Your task to perform on an android device: install app "Contacts" Image 0: 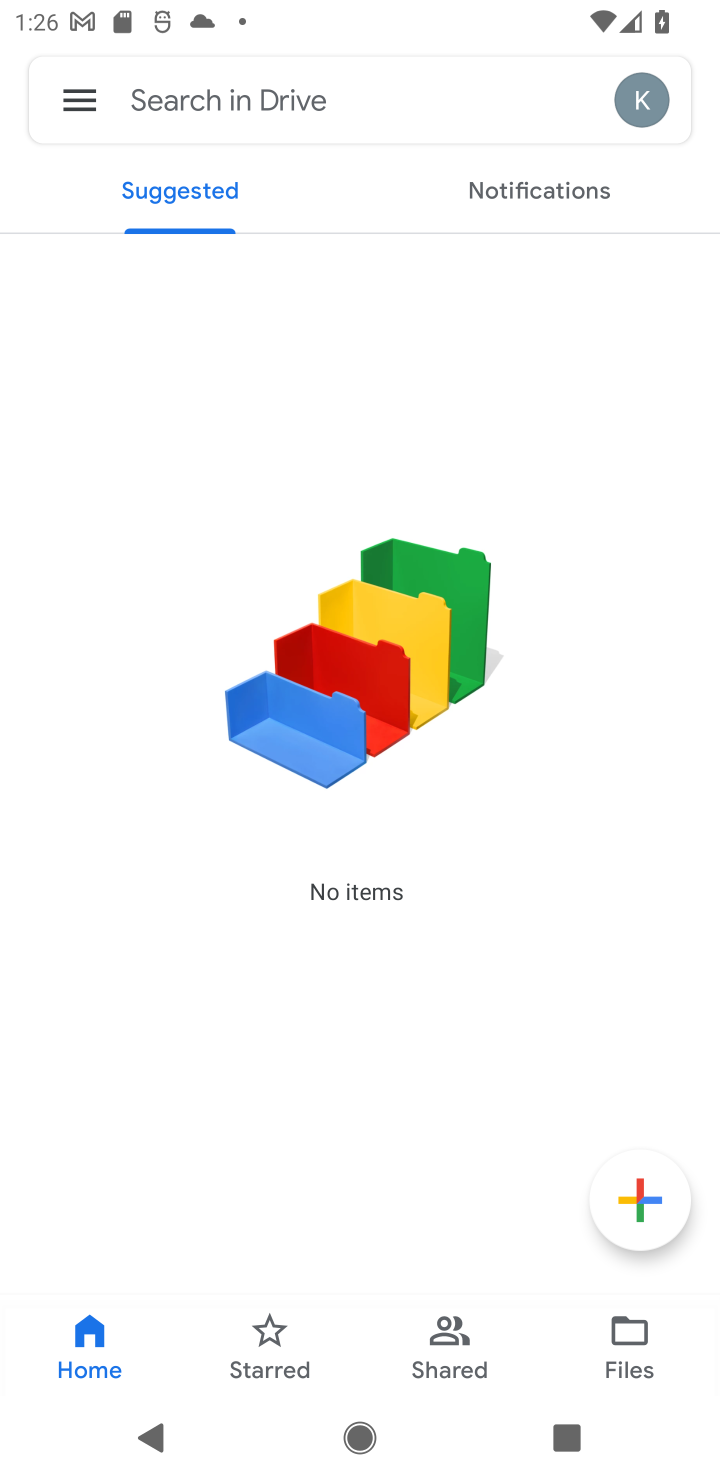
Step 0: press home button
Your task to perform on an android device: install app "Contacts" Image 1: 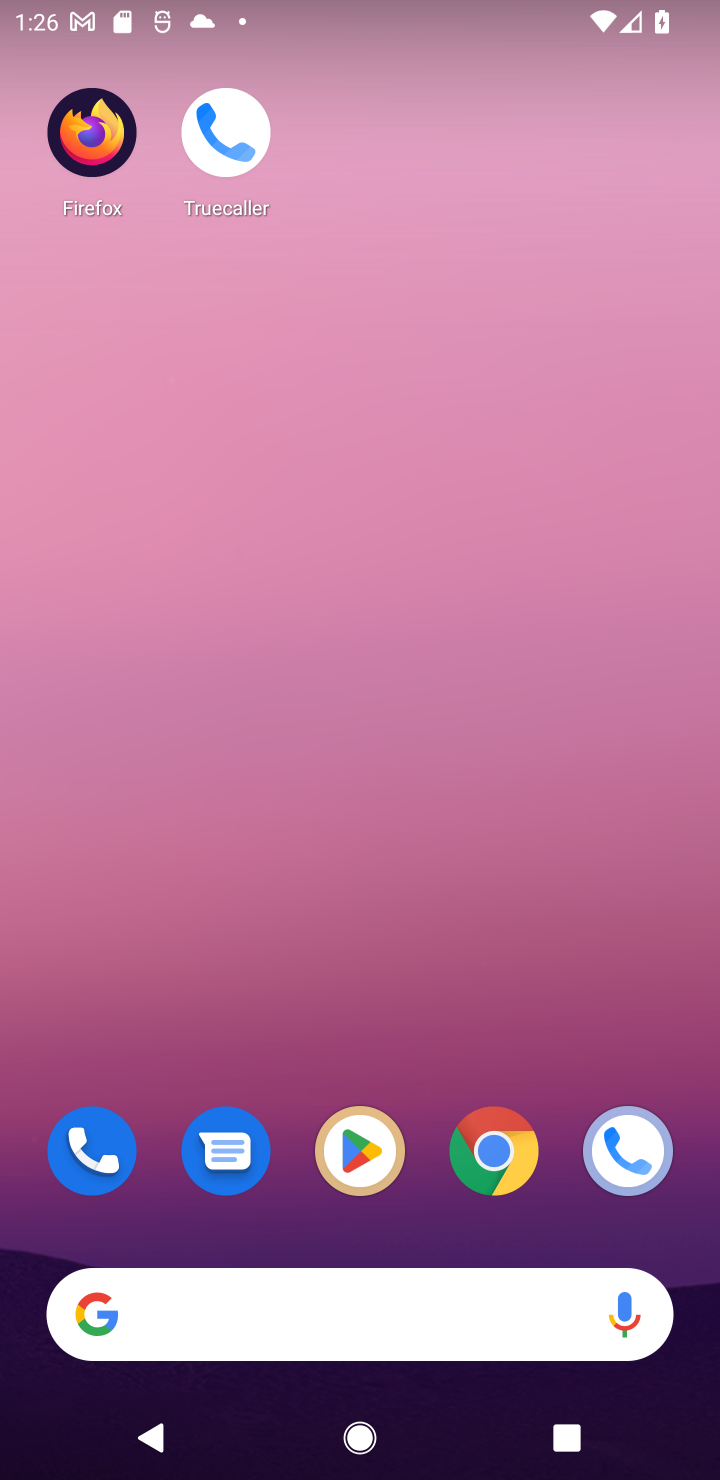
Step 1: press home button
Your task to perform on an android device: install app "Contacts" Image 2: 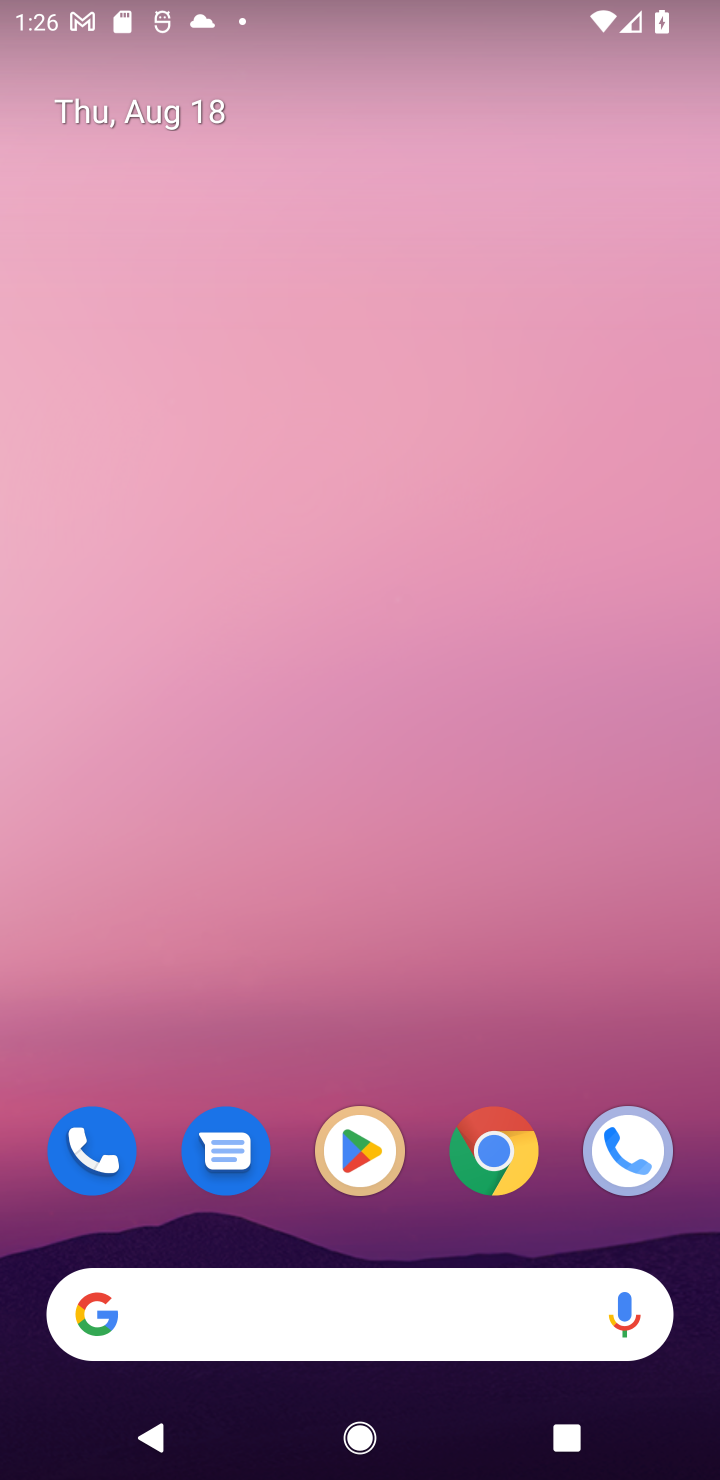
Step 2: click (365, 1158)
Your task to perform on an android device: install app "Contacts" Image 3: 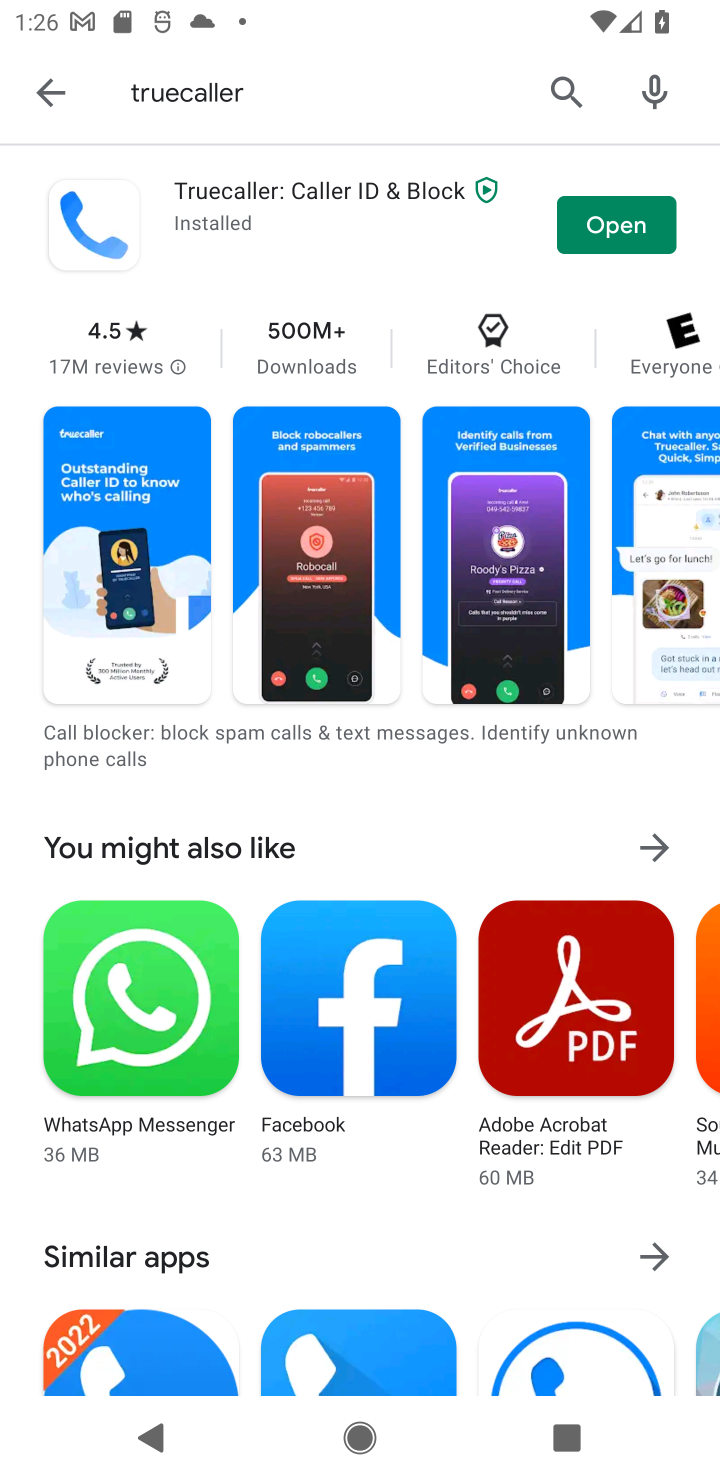
Step 3: click (56, 94)
Your task to perform on an android device: install app "Contacts" Image 4: 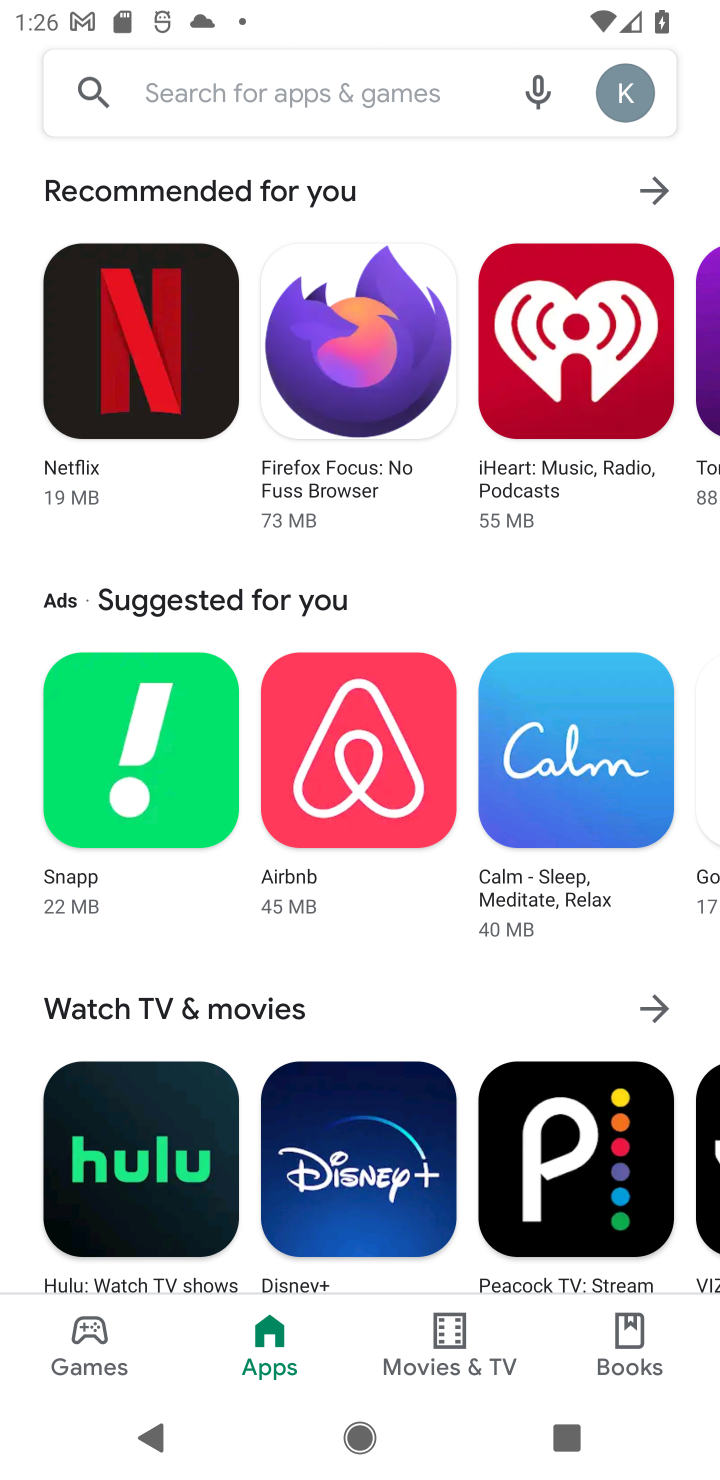
Step 4: click (269, 78)
Your task to perform on an android device: install app "Contacts" Image 5: 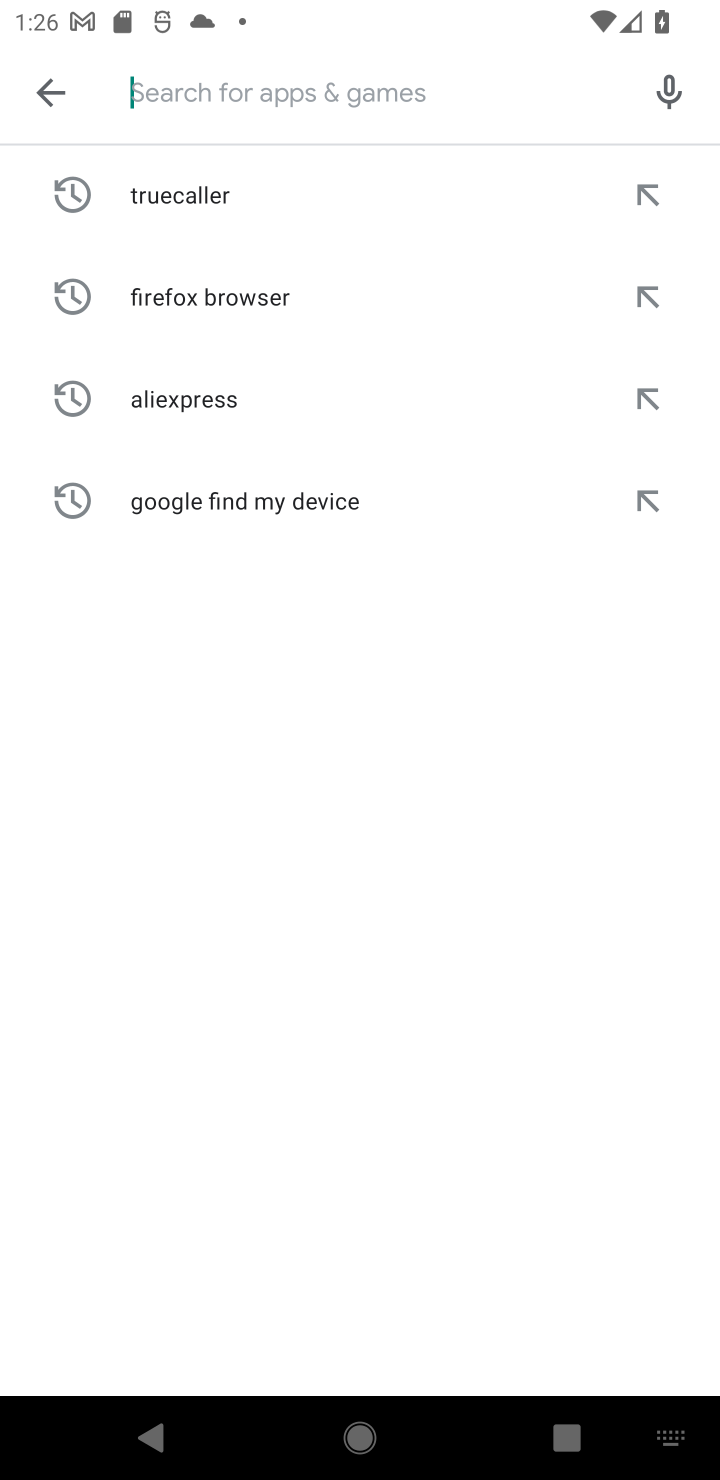
Step 5: type "Contacts"
Your task to perform on an android device: install app "Contacts" Image 6: 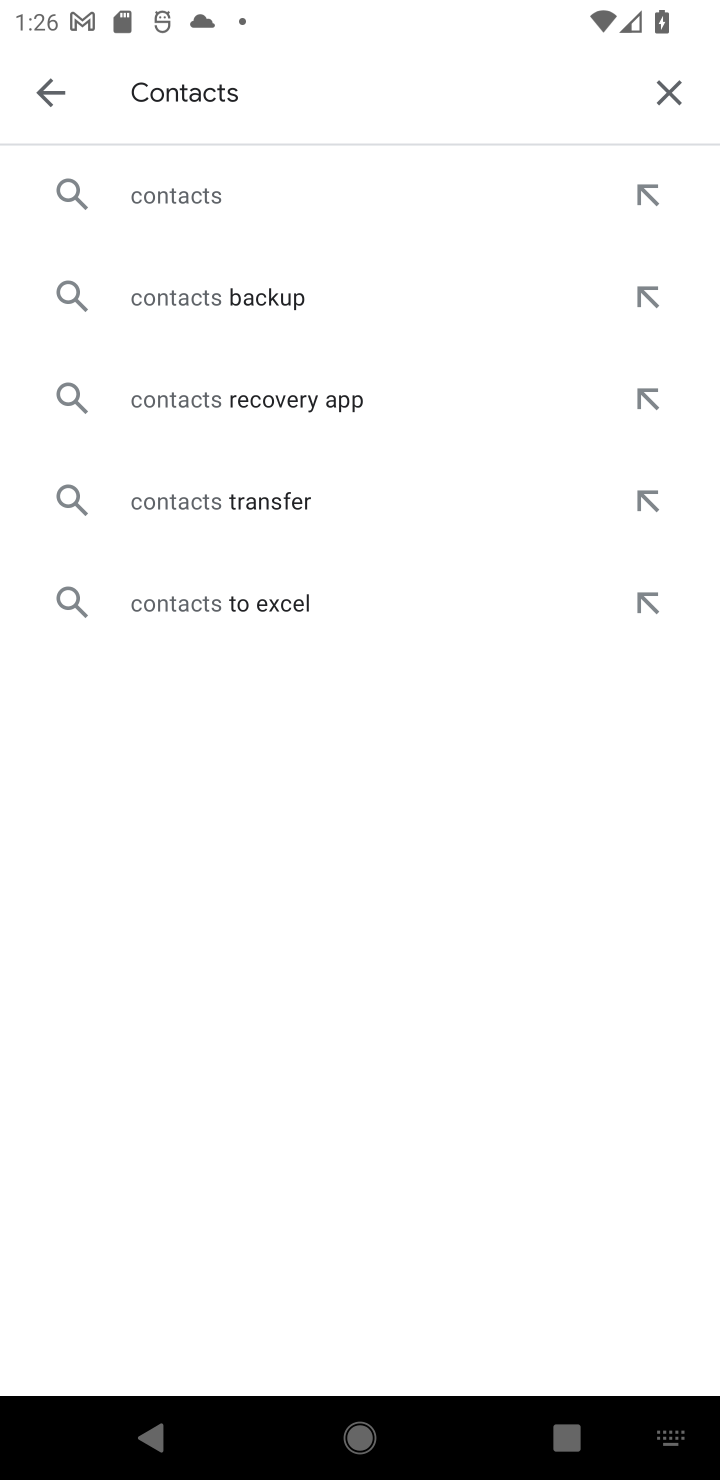
Step 6: click (183, 201)
Your task to perform on an android device: install app "Contacts" Image 7: 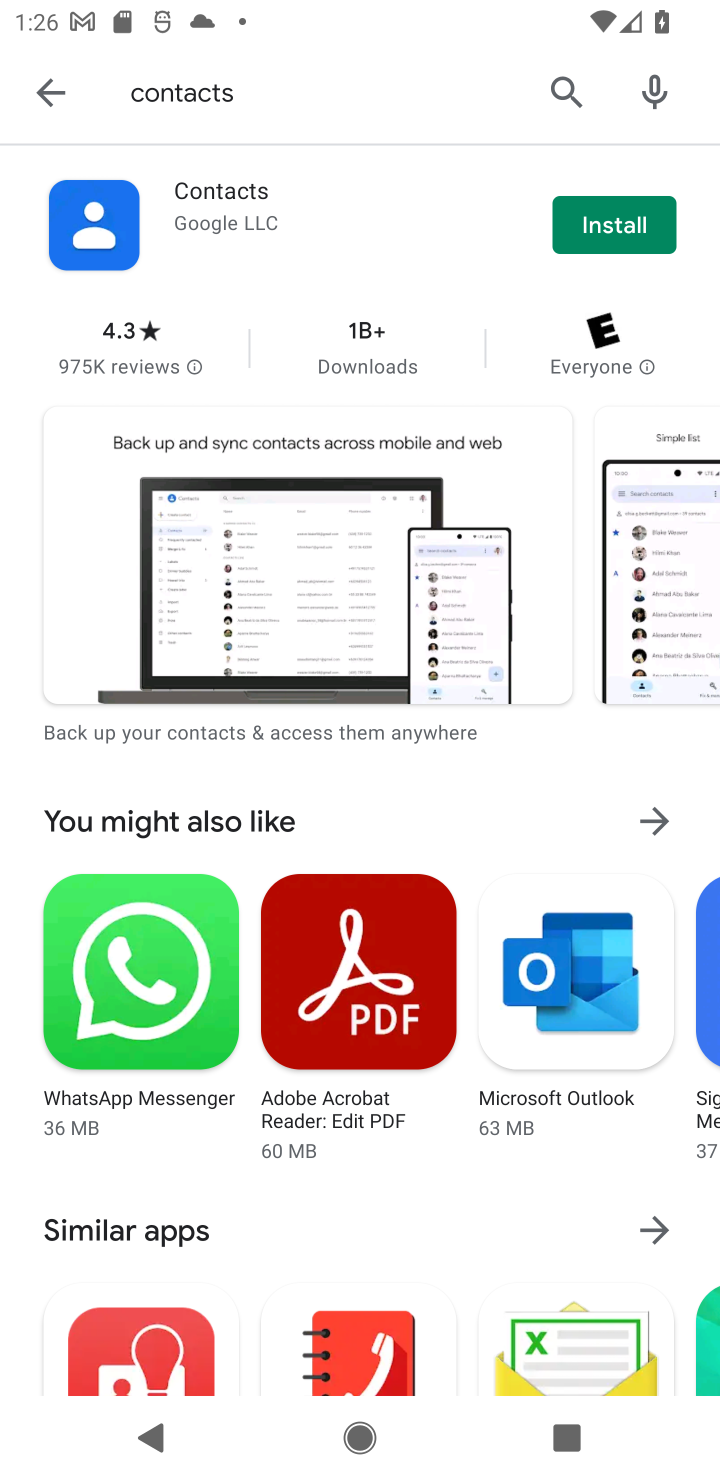
Step 7: click (640, 242)
Your task to perform on an android device: install app "Contacts" Image 8: 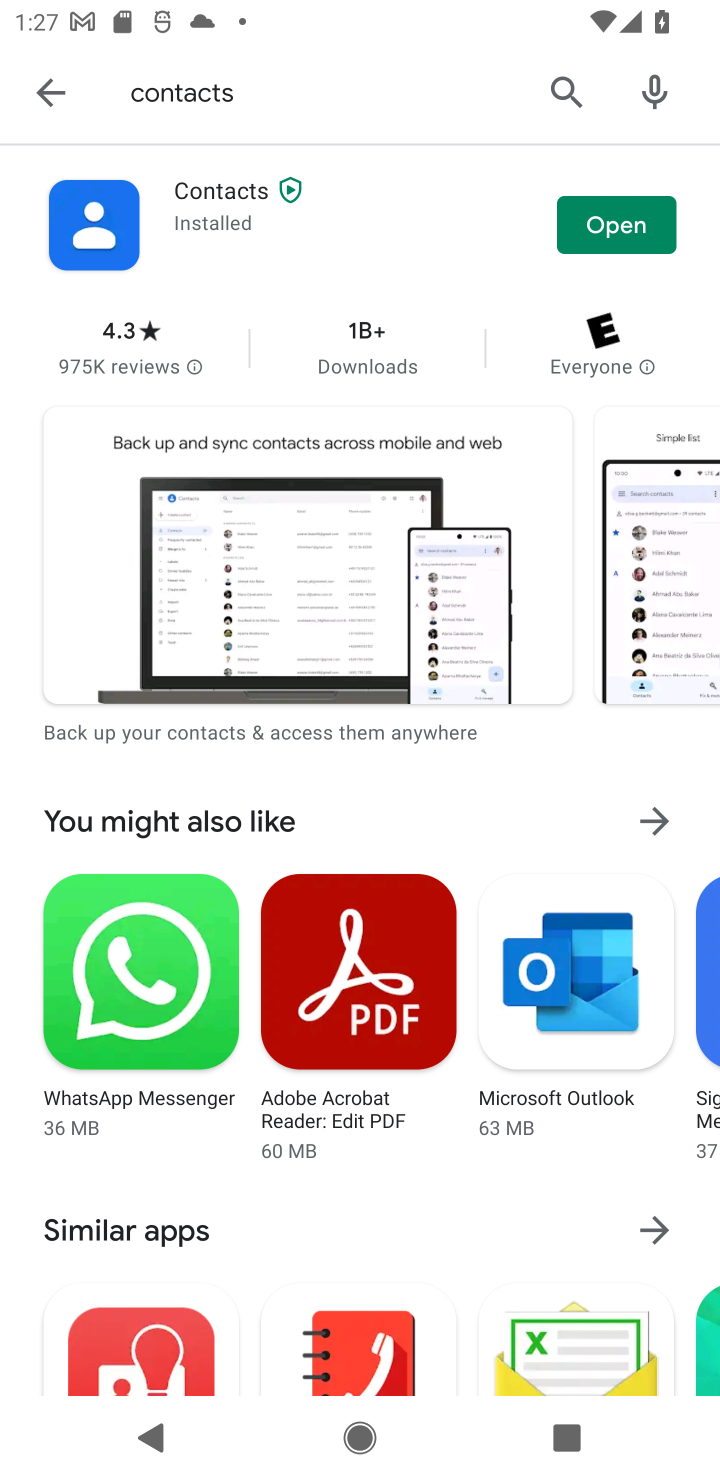
Step 8: task complete